Your task to perform on an android device: Open the stopwatch Image 0: 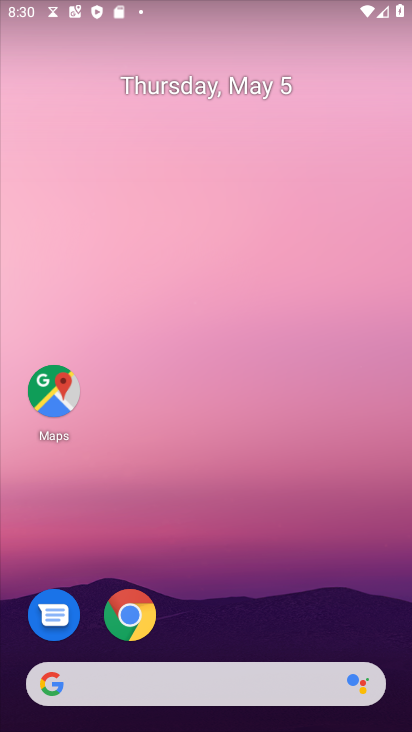
Step 0: drag from (207, 637) to (286, 193)
Your task to perform on an android device: Open the stopwatch Image 1: 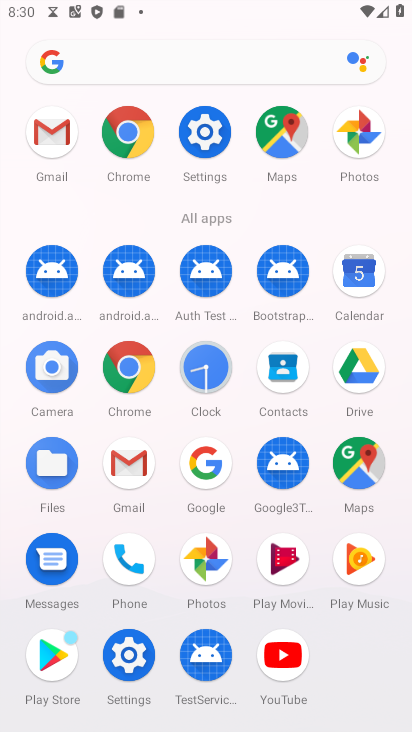
Step 1: click (206, 380)
Your task to perform on an android device: Open the stopwatch Image 2: 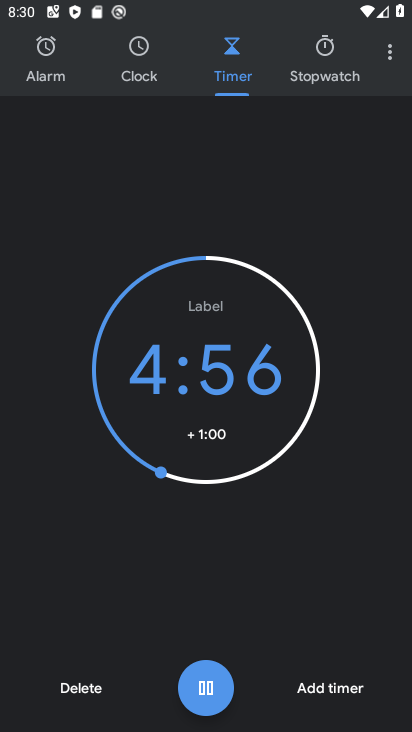
Step 2: click (324, 69)
Your task to perform on an android device: Open the stopwatch Image 3: 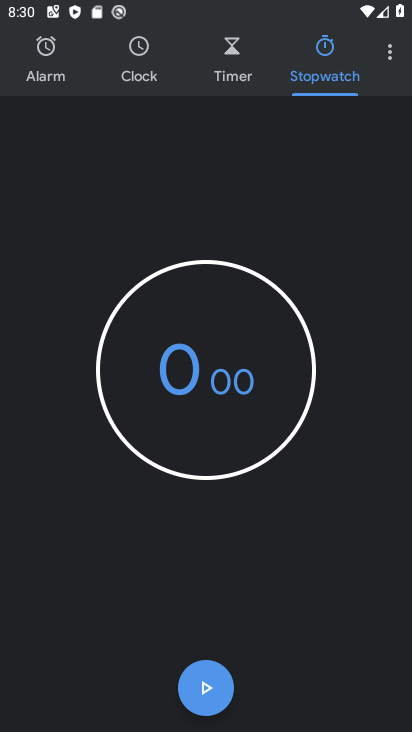
Step 3: click (206, 673)
Your task to perform on an android device: Open the stopwatch Image 4: 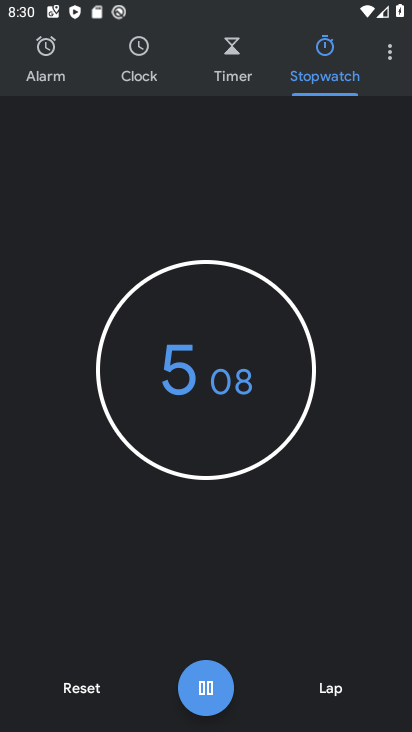
Step 4: task complete